Your task to perform on an android device: turn off notifications settings in the gmail app Image 0: 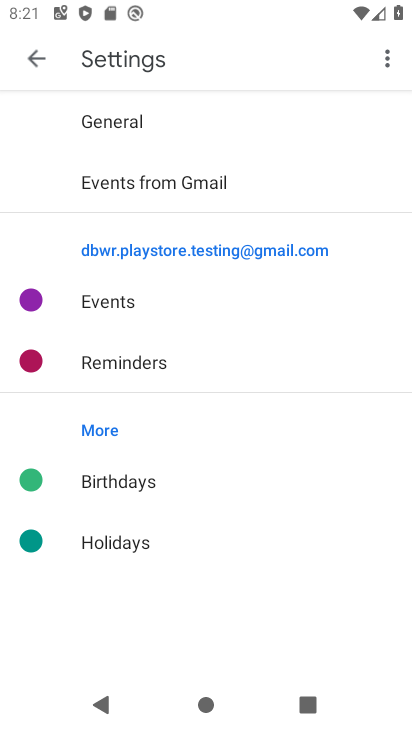
Step 0: press home button
Your task to perform on an android device: turn off notifications settings in the gmail app Image 1: 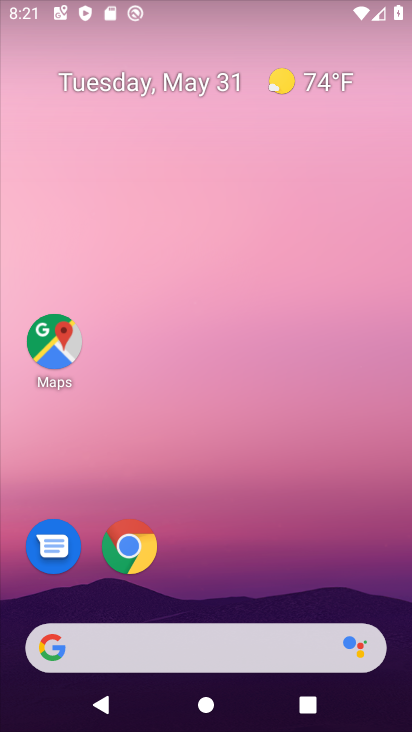
Step 1: drag from (275, 544) to (319, 162)
Your task to perform on an android device: turn off notifications settings in the gmail app Image 2: 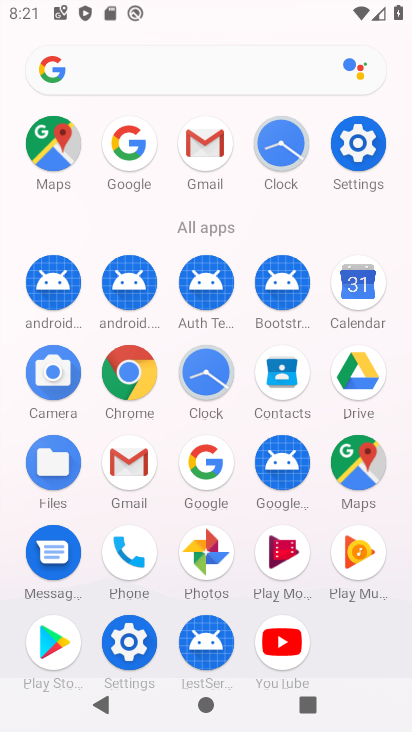
Step 2: click (206, 140)
Your task to perform on an android device: turn off notifications settings in the gmail app Image 3: 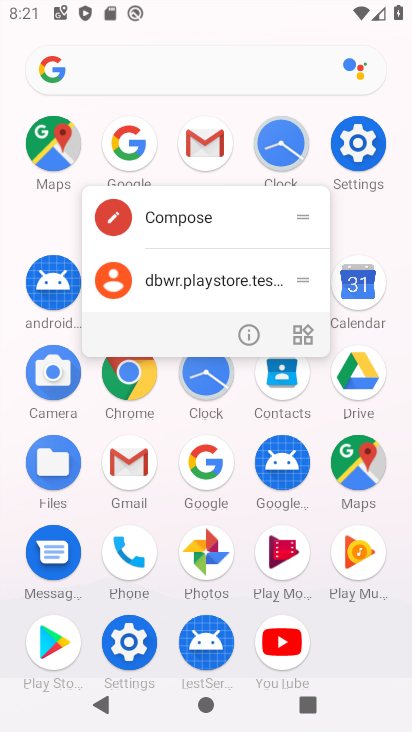
Step 3: click (200, 144)
Your task to perform on an android device: turn off notifications settings in the gmail app Image 4: 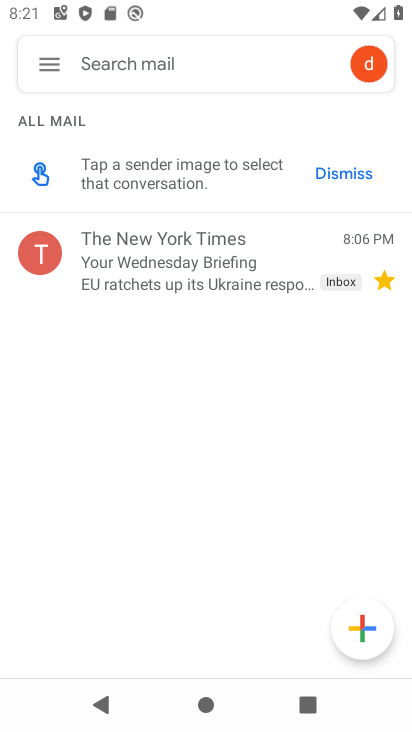
Step 4: click (47, 70)
Your task to perform on an android device: turn off notifications settings in the gmail app Image 5: 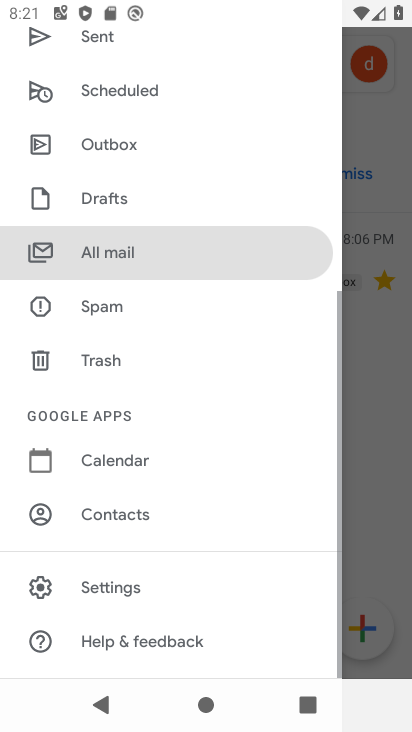
Step 5: click (113, 591)
Your task to perform on an android device: turn off notifications settings in the gmail app Image 6: 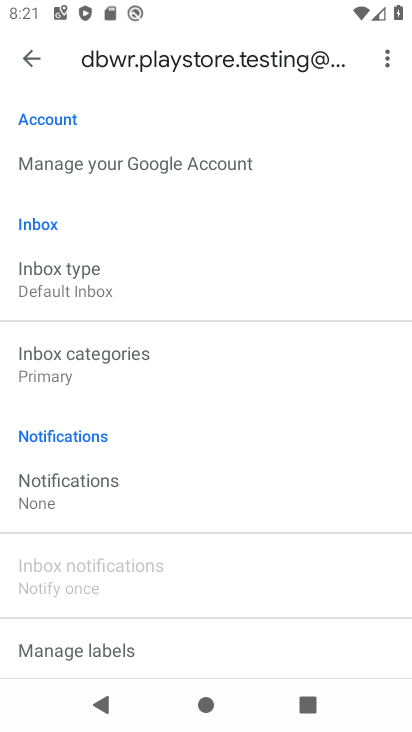
Step 6: click (55, 489)
Your task to perform on an android device: turn off notifications settings in the gmail app Image 7: 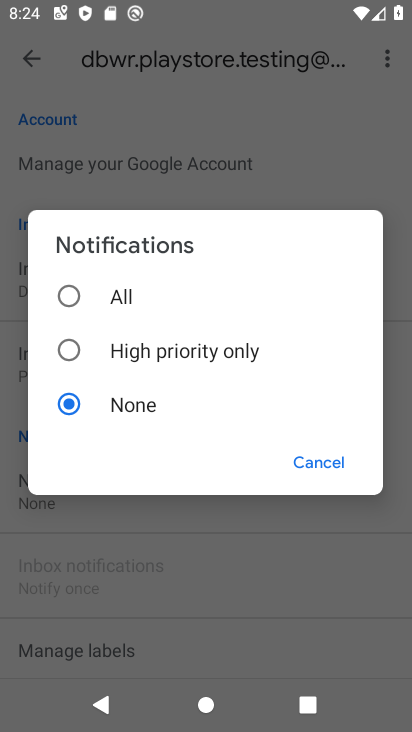
Step 7: task complete